Your task to perform on an android device: Is it going to rain this weekend? Image 0: 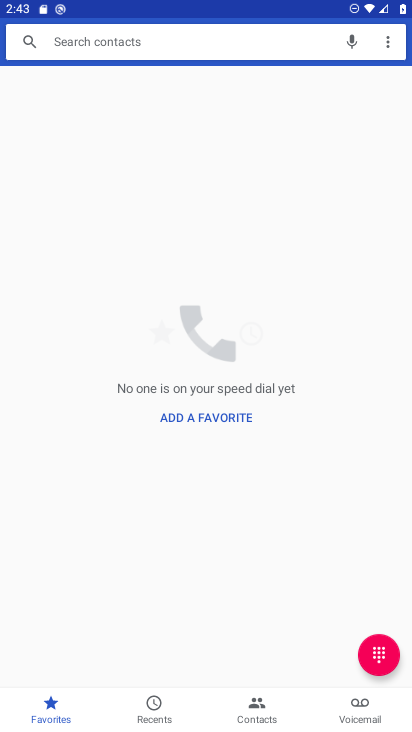
Step 0: press home button
Your task to perform on an android device: Is it going to rain this weekend? Image 1: 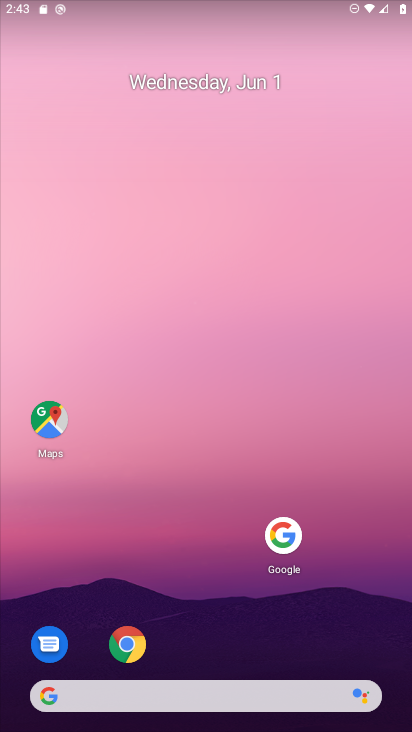
Step 1: click (64, 694)
Your task to perform on an android device: Is it going to rain this weekend? Image 2: 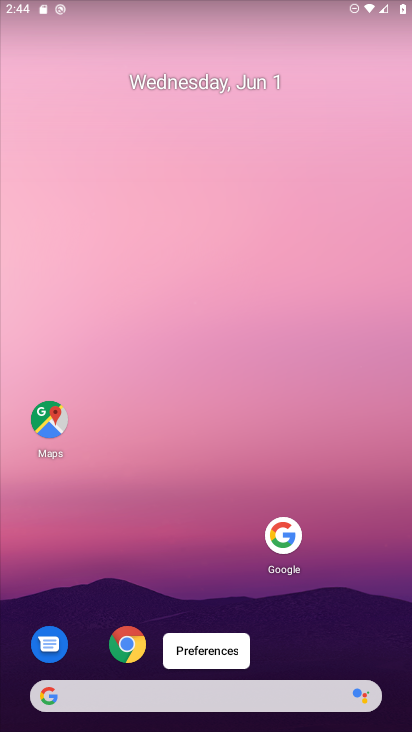
Step 2: click (51, 698)
Your task to perform on an android device: Is it going to rain this weekend? Image 3: 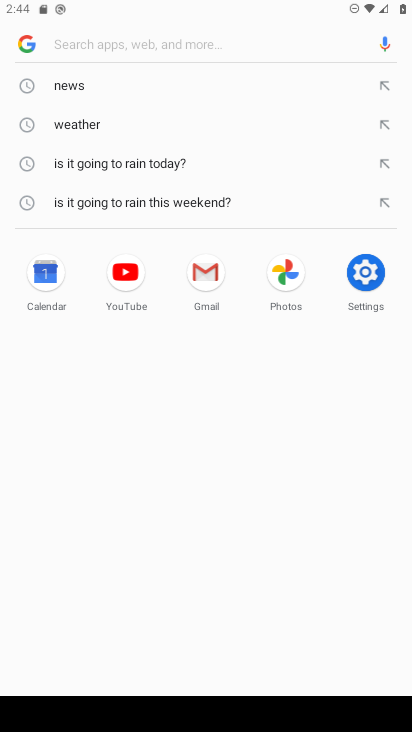
Step 3: click (63, 123)
Your task to perform on an android device: Is it going to rain this weekend? Image 4: 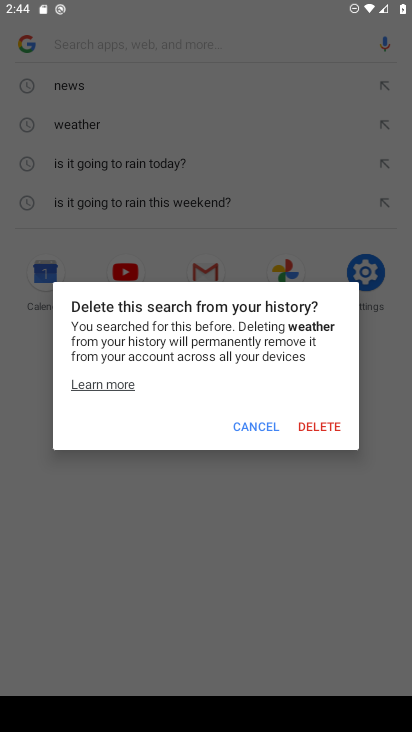
Step 4: click (256, 423)
Your task to perform on an android device: Is it going to rain this weekend? Image 5: 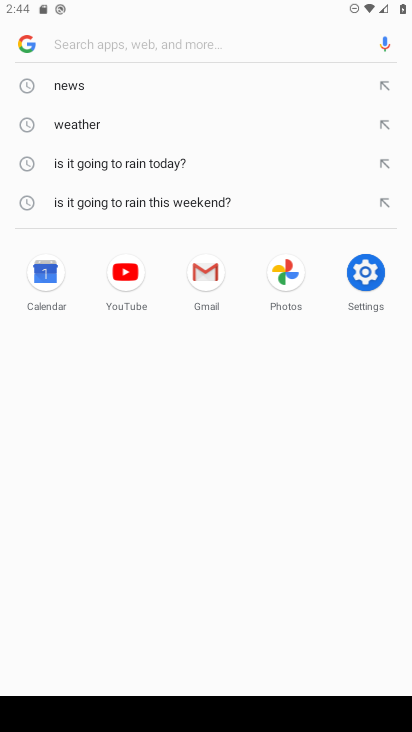
Step 5: click (100, 126)
Your task to perform on an android device: Is it going to rain this weekend? Image 6: 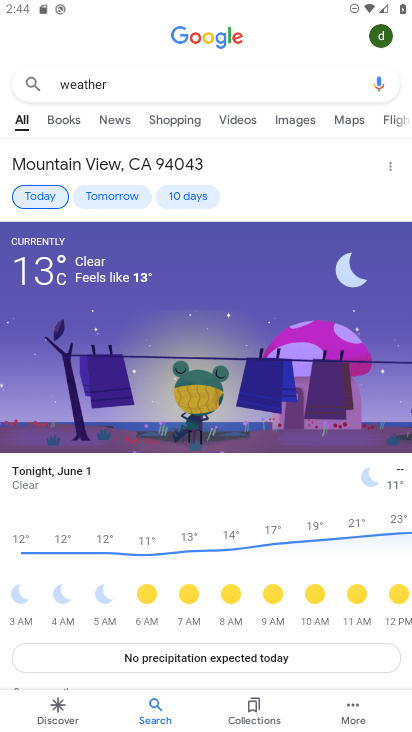
Step 6: click (191, 195)
Your task to perform on an android device: Is it going to rain this weekend? Image 7: 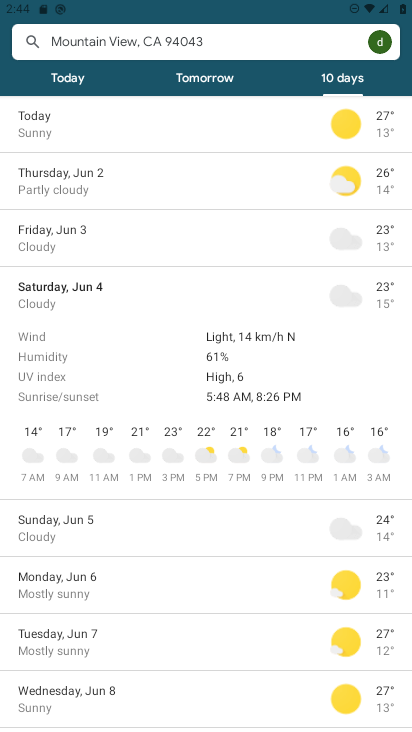
Step 7: task complete